Your task to perform on an android device: change the clock style Image 0: 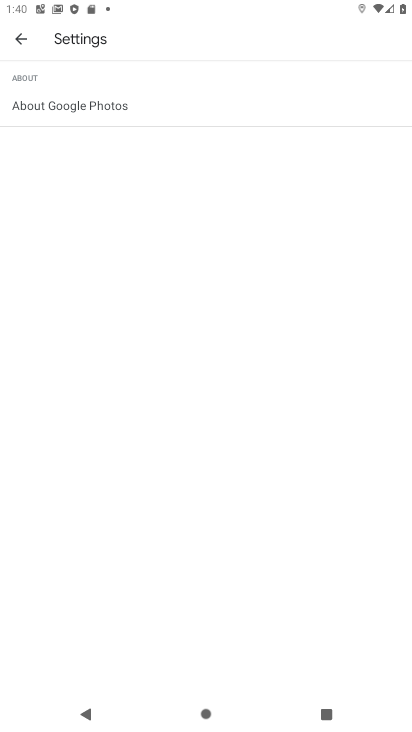
Step 0: press home button
Your task to perform on an android device: change the clock style Image 1: 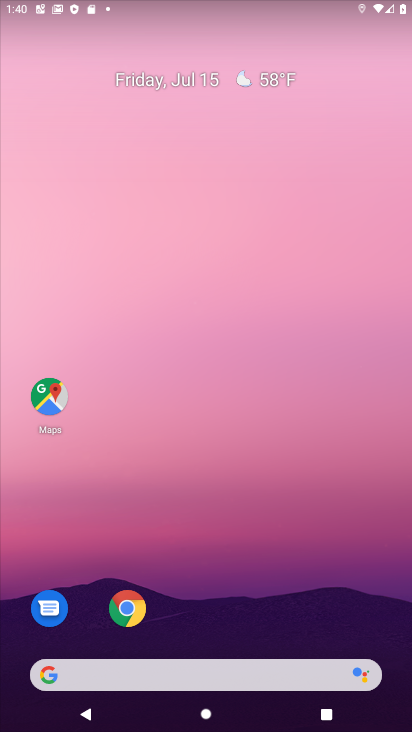
Step 1: drag from (321, 616) to (244, 112)
Your task to perform on an android device: change the clock style Image 2: 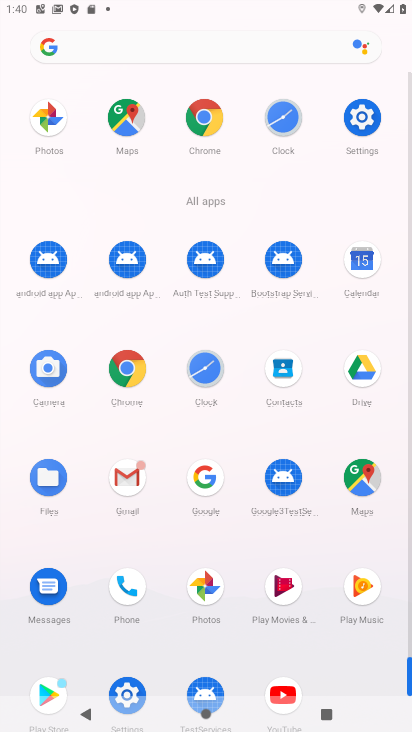
Step 2: click (208, 353)
Your task to perform on an android device: change the clock style Image 3: 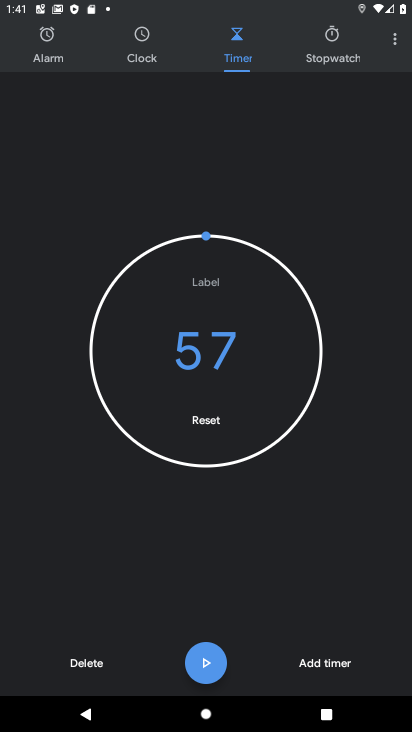
Step 3: click (402, 41)
Your task to perform on an android device: change the clock style Image 4: 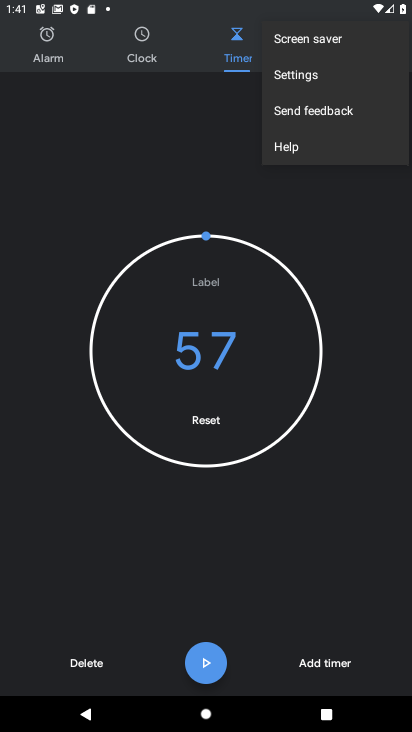
Step 4: click (290, 83)
Your task to perform on an android device: change the clock style Image 5: 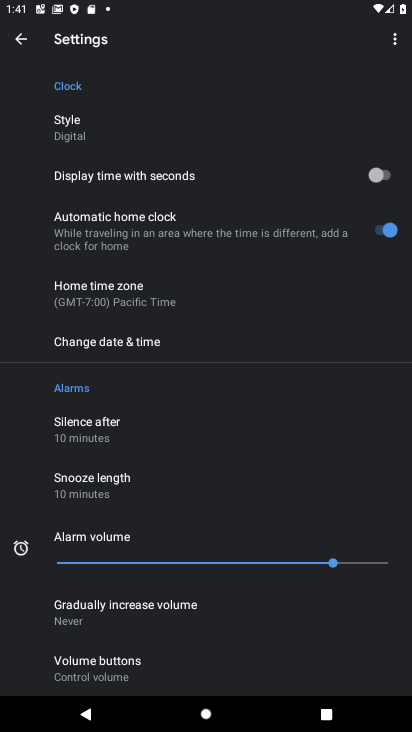
Step 5: click (84, 135)
Your task to perform on an android device: change the clock style Image 6: 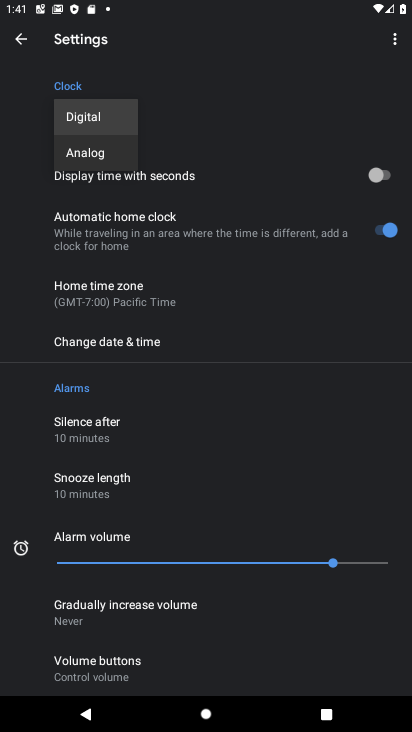
Step 6: click (92, 148)
Your task to perform on an android device: change the clock style Image 7: 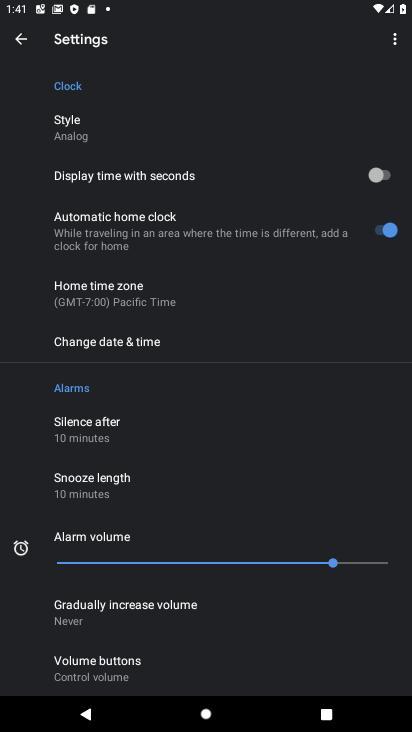
Step 7: task complete